Your task to perform on an android device: turn notification dots on Image 0: 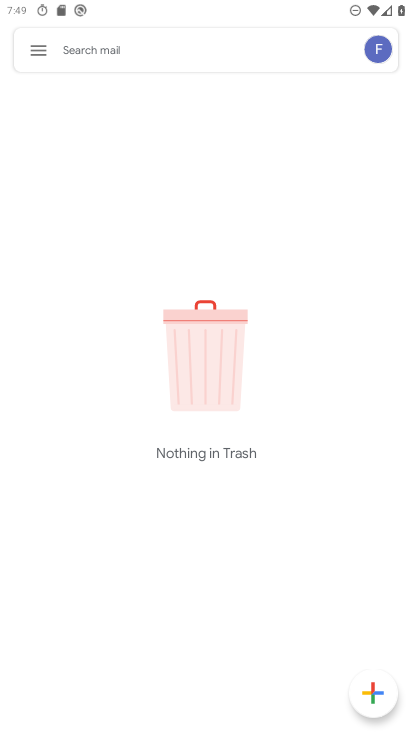
Step 0: press home button
Your task to perform on an android device: turn notification dots on Image 1: 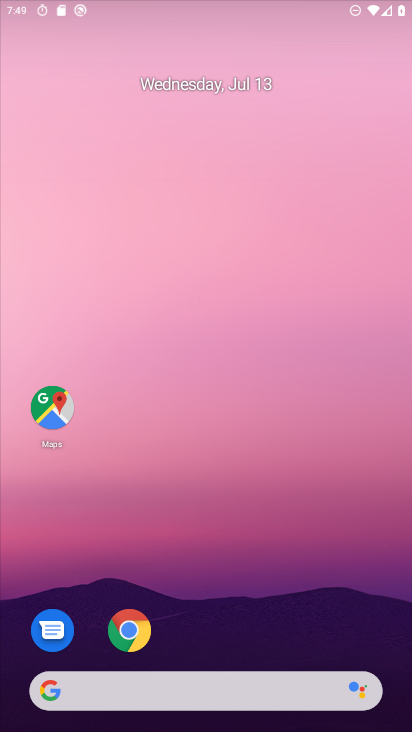
Step 1: drag from (404, 702) to (365, 48)
Your task to perform on an android device: turn notification dots on Image 2: 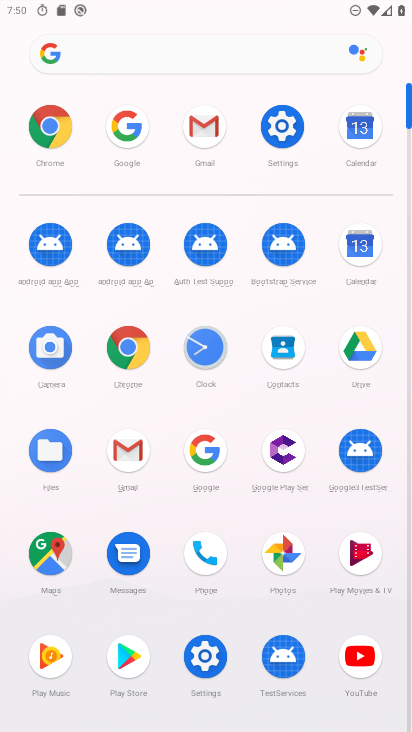
Step 2: click (292, 114)
Your task to perform on an android device: turn notification dots on Image 3: 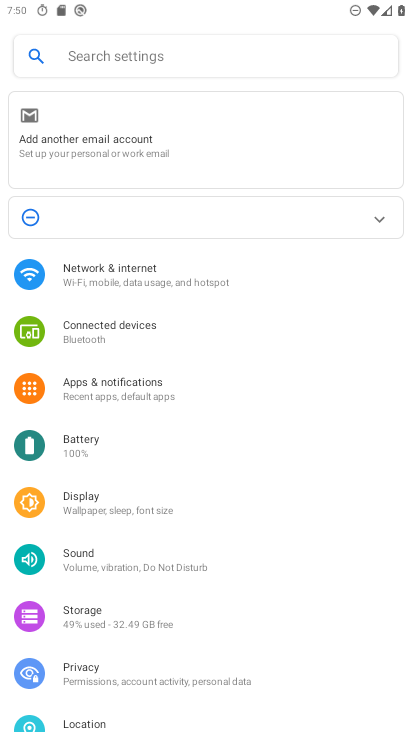
Step 3: click (132, 379)
Your task to perform on an android device: turn notification dots on Image 4: 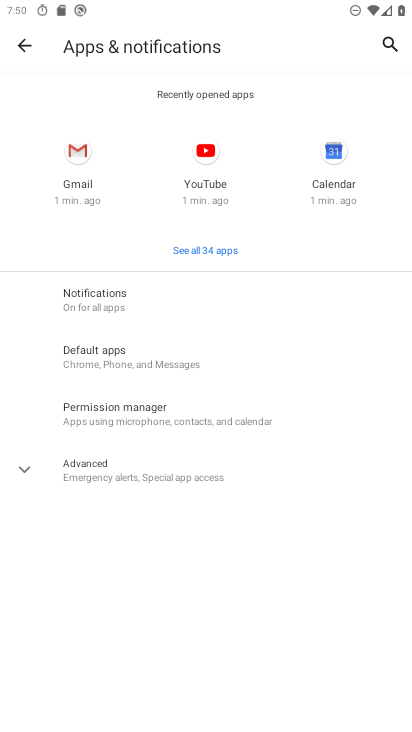
Step 4: click (93, 313)
Your task to perform on an android device: turn notification dots on Image 5: 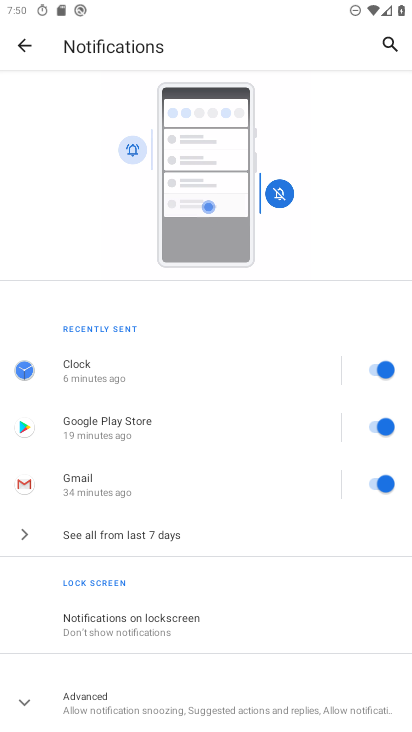
Step 5: click (101, 701)
Your task to perform on an android device: turn notification dots on Image 6: 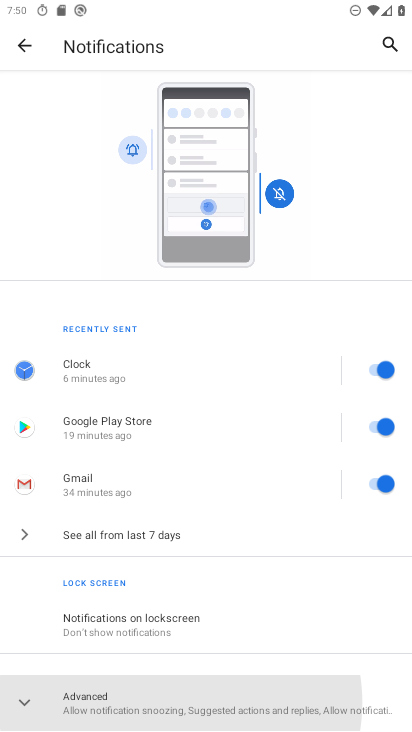
Step 6: drag from (101, 701) to (175, 177)
Your task to perform on an android device: turn notification dots on Image 7: 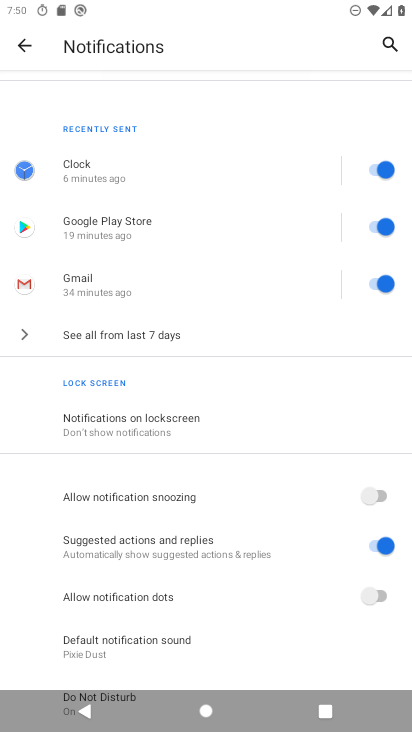
Step 7: click (347, 594)
Your task to perform on an android device: turn notification dots on Image 8: 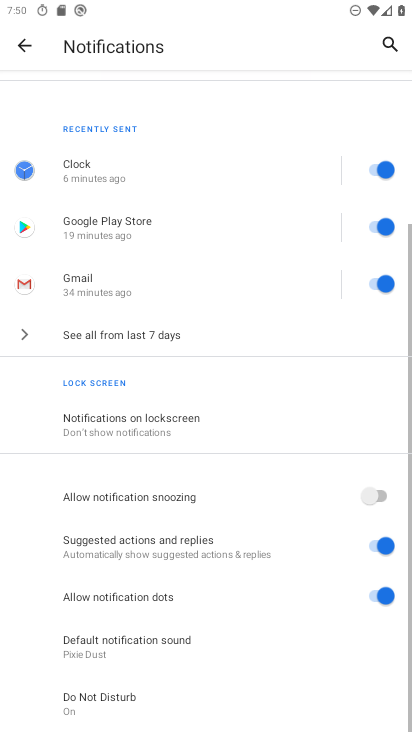
Step 8: task complete